Your task to perform on an android device: Go to ESPN.com Image 0: 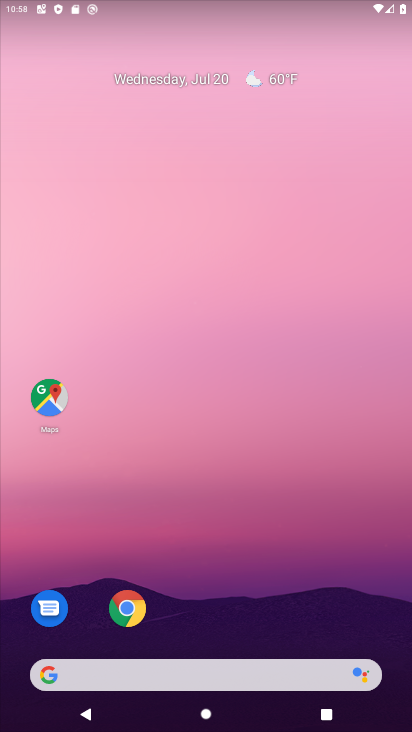
Step 0: click (119, 606)
Your task to perform on an android device: Go to ESPN.com Image 1: 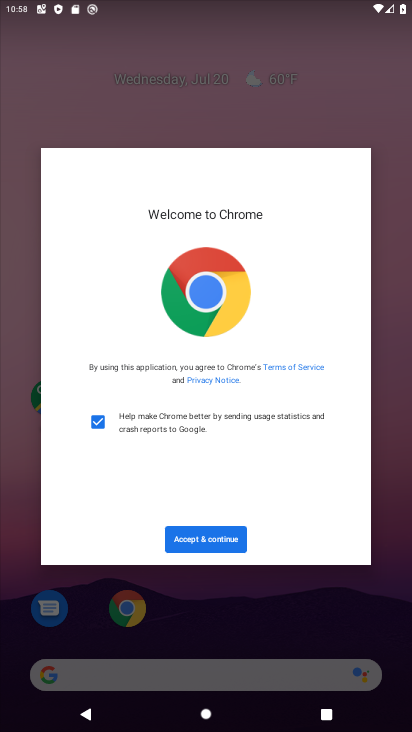
Step 1: click (204, 544)
Your task to perform on an android device: Go to ESPN.com Image 2: 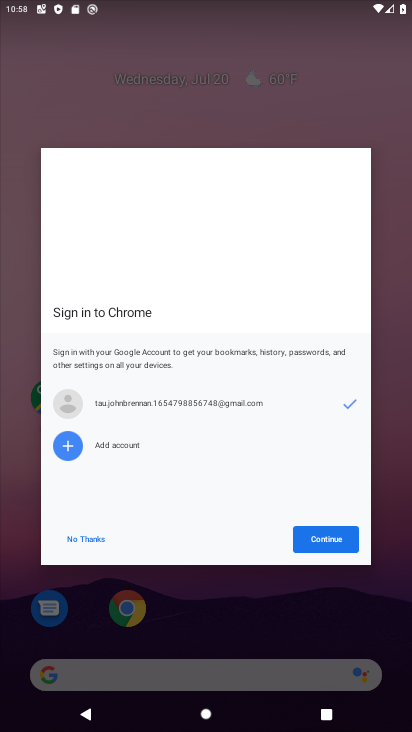
Step 2: click (326, 544)
Your task to perform on an android device: Go to ESPN.com Image 3: 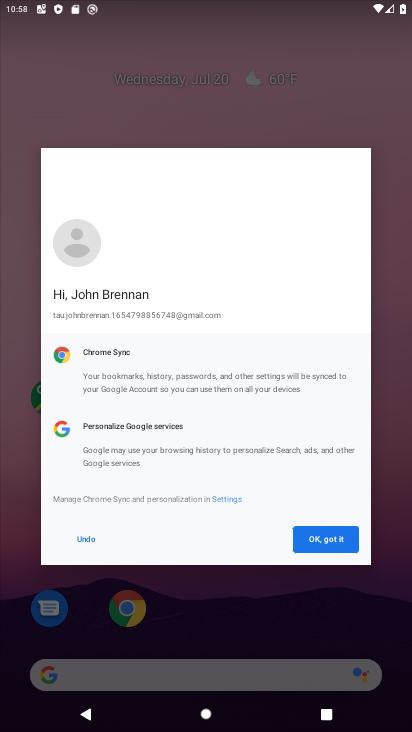
Step 3: click (326, 544)
Your task to perform on an android device: Go to ESPN.com Image 4: 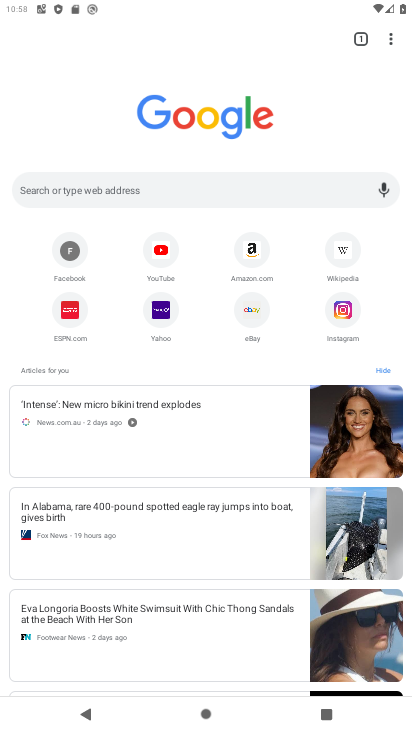
Step 4: click (74, 317)
Your task to perform on an android device: Go to ESPN.com Image 5: 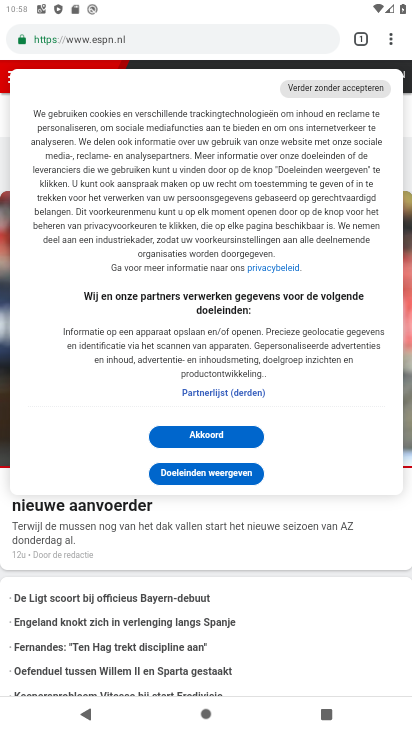
Step 5: task complete